Your task to perform on an android device: change text size in settings app Image 0: 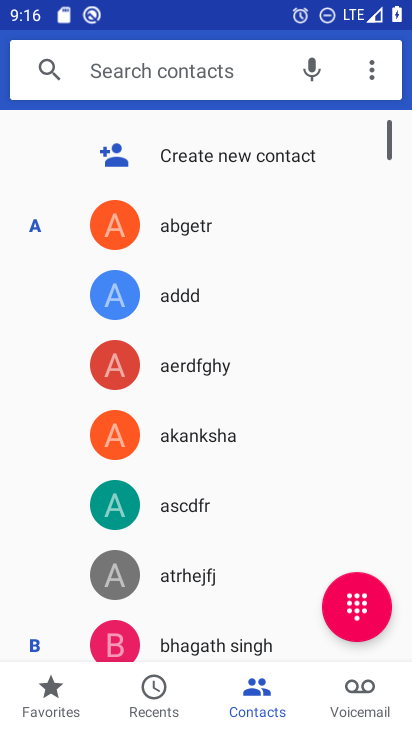
Step 0: press home button
Your task to perform on an android device: change text size in settings app Image 1: 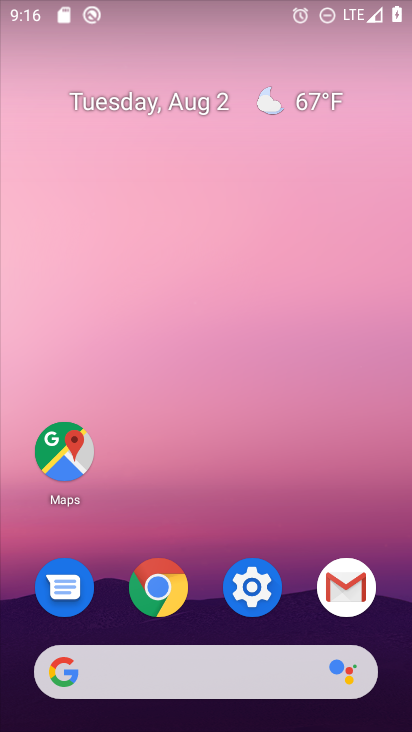
Step 1: click (239, 589)
Your task to perform on an android device: change text size in settings app Image 2: 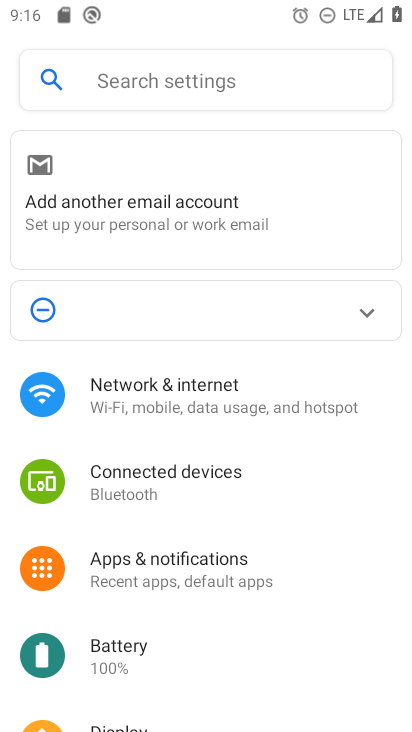
Step 2: click (140, 86)
Your task to perform on an android device: change text size in settings app Image 3: 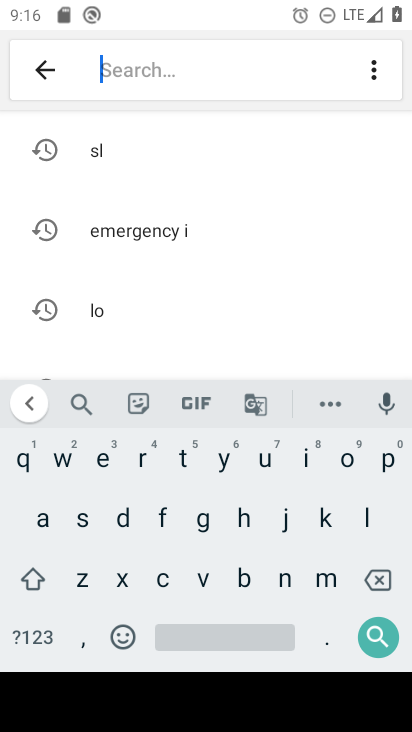
Step 3: click (73, 512)
Your task to perform on an android device: change text size in settings app Image 4: 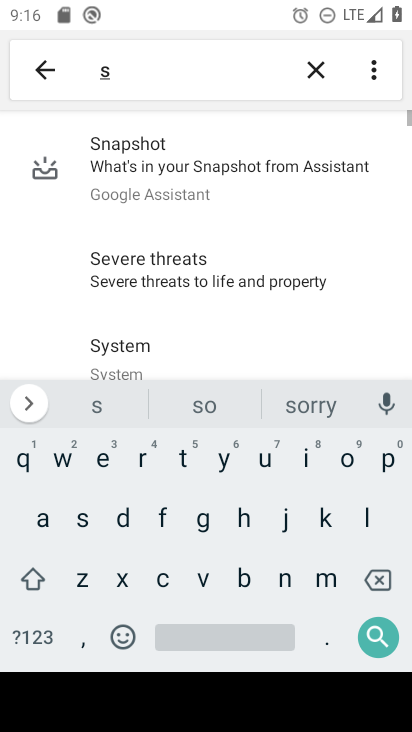
Step 4: click (299, 452)
Your task to perform on an android device: change text size in settings app Image 5: 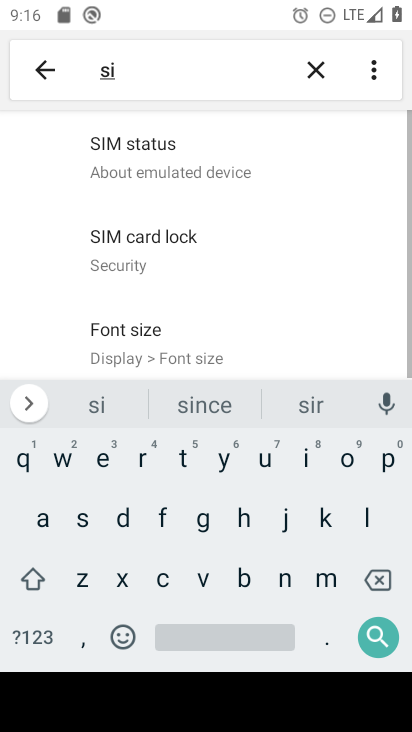
Step 5: click (74, 578)
Your task to perform on an android device: change text size in settings app Image 6: 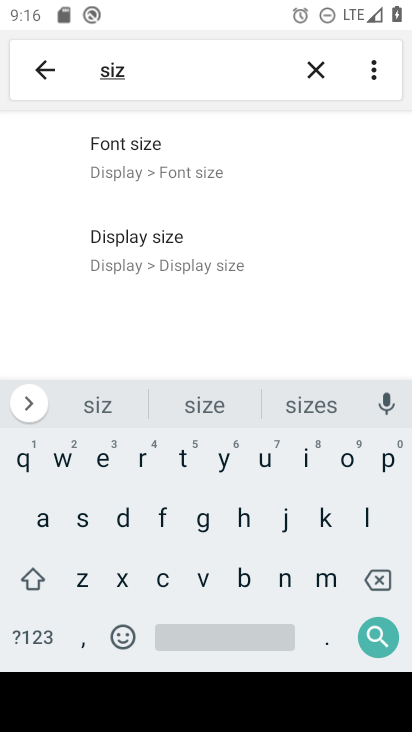
Step 6: click (192, 152)
Your task to perform on an android device: change text size in settings app Image 7: 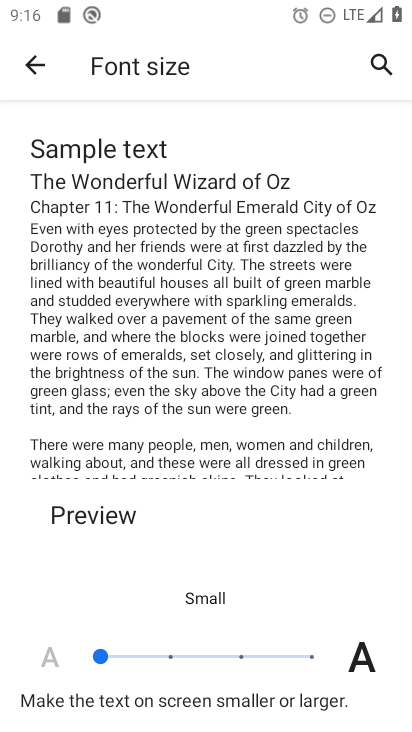
Step 7: click (177, 653)
Your task to perform on an android device: change text size in settings app Image 8: 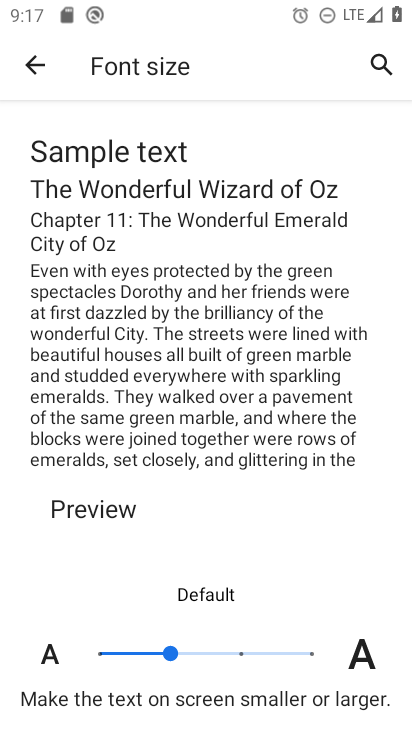
Step 8: task complete